Your task to perform on an android device: Open wifi settings Image 0: 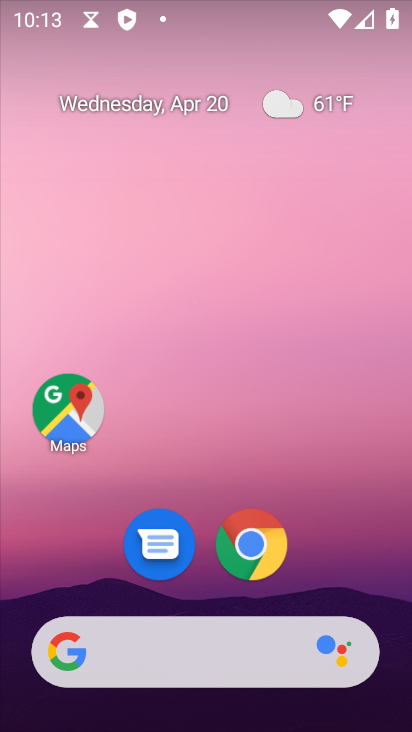
Step 0: drag from (165, 626) to (309, 66)
Your task to perform on an android device: Open wifi settings Image 1: 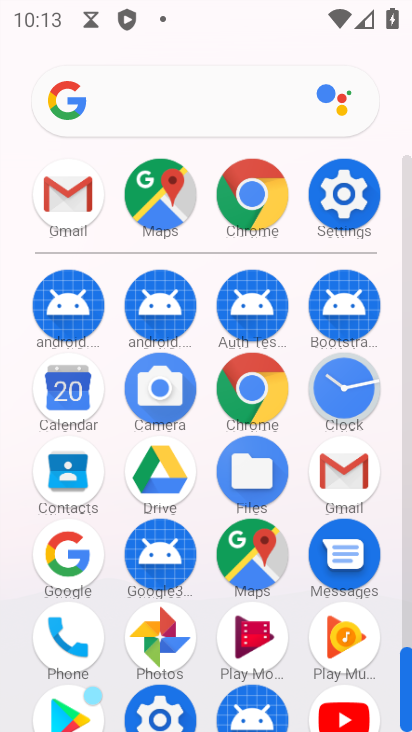
Step 1: click (349, 209)
Your task to perform on an android device: Open wifi settings Image 2: 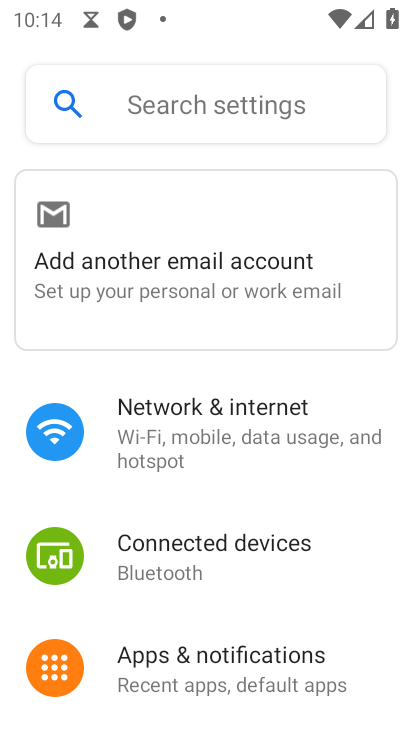
Step 2: click (250, 411)
Your task to perform on an android device: Open wifi settings Image 3: 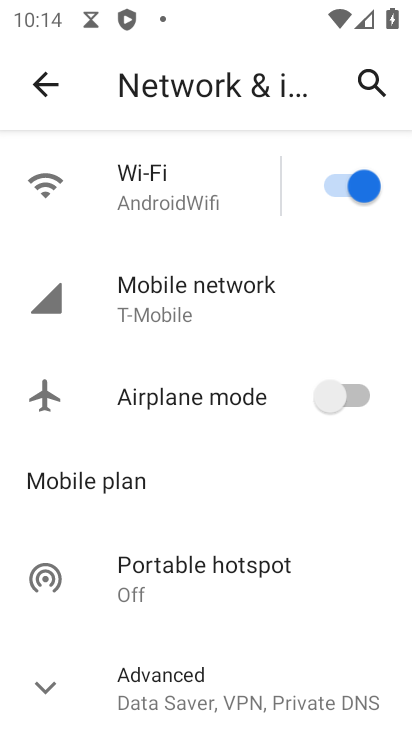
Step 3: click (177, 193)
Your task to perform on an android device: Open wifi settings Image 4: 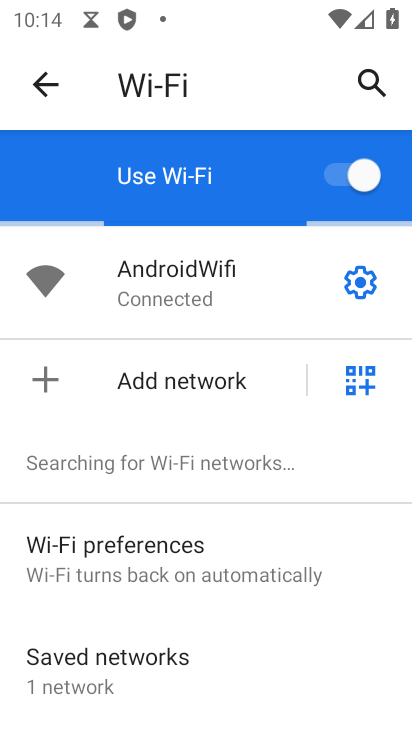
Step 4: task complete